Your task to perform on an android device: Open ESPN.com Image 0: 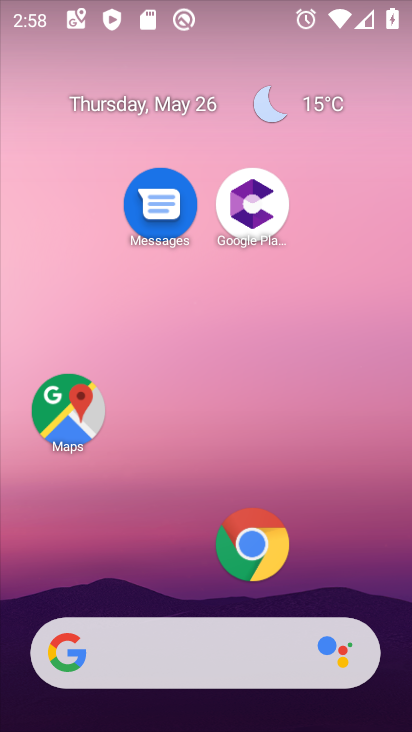
Step 0: click (250, 558)
Your task to perform on an android device: Open ESPN.com Image 1: 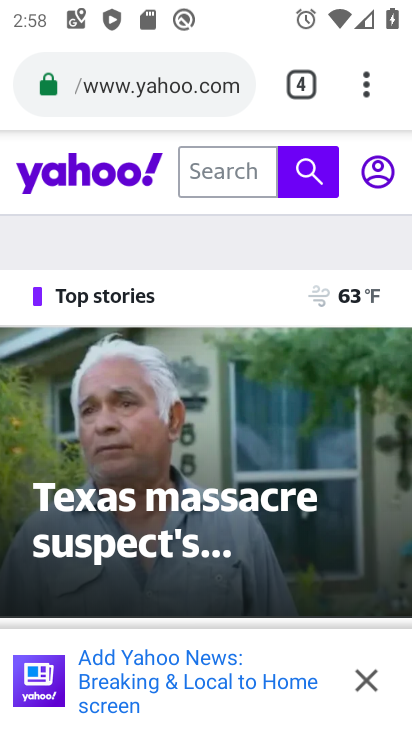
Step 1: click (317, 82)
Your task to perform on an android device: Open ESPN.com Image 2: 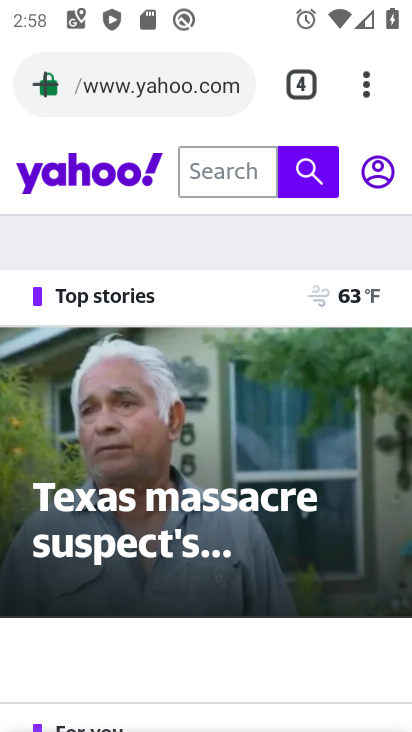
Step 2: click (317, 82)
Your task to perform on an android device: Open ESPN.com Image 3: 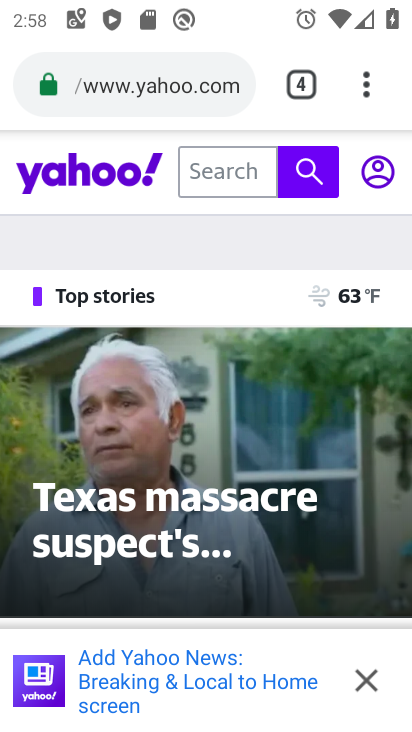
Step 3: click (296, 82)
Your task to perform on an android device: Open ESPN.com Image 4: 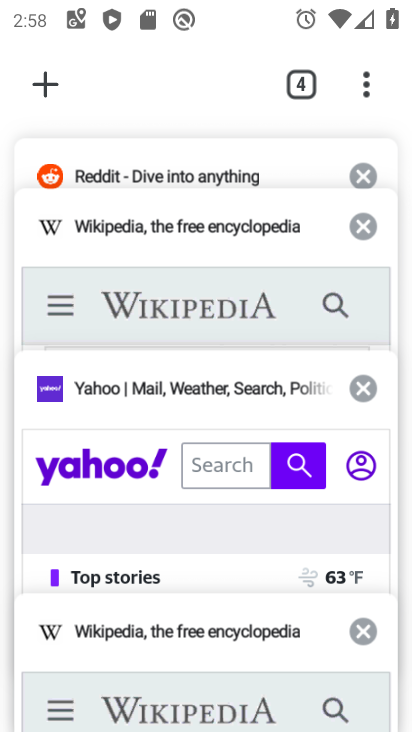
Step 4: click (42, 84)
Your task to perform on an android device: Open ESPN.com Image 5: 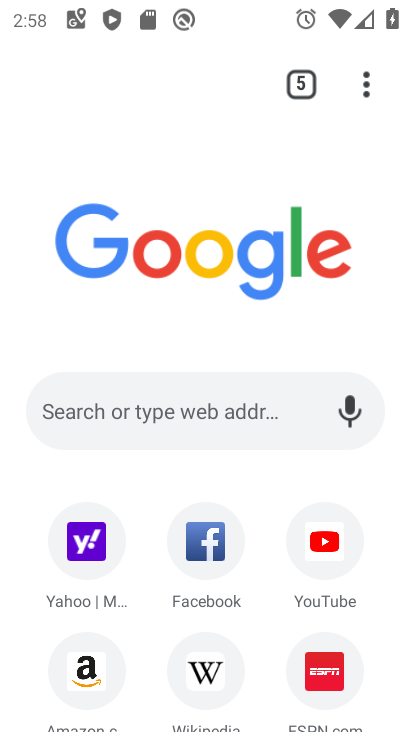
Step 5: click (307, 662)
Your task to perform on an android device: Open ESPN.com Image 6: 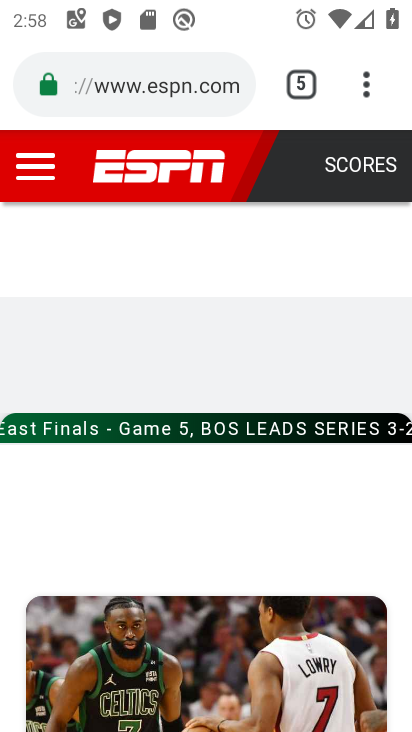
Step 6: task complete